Your task to perform on an android device: Open display settings Image 0: 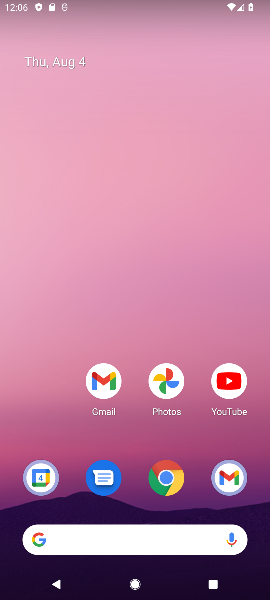
Step 0: type ""
Your task to perform on an android device: Open display settings Image 1: 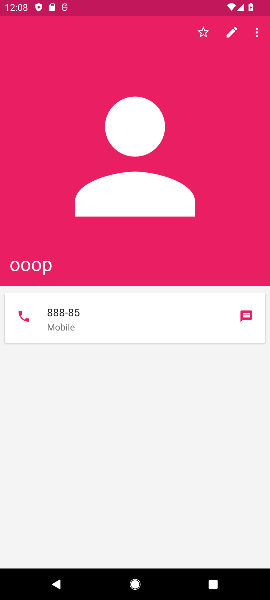
Step 1: press home button
Your task to perform on an android device: Open display settings Image 2: 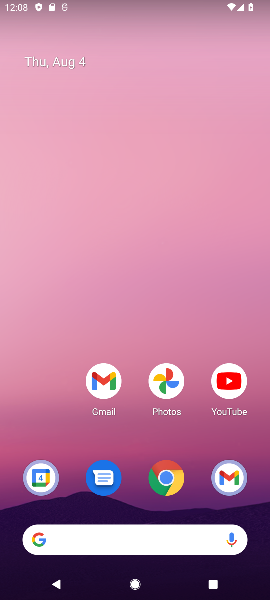
Step 2: drag from (143, 518) to (238, 59)
Your task to perform on an android device: Open display settings Image 3: 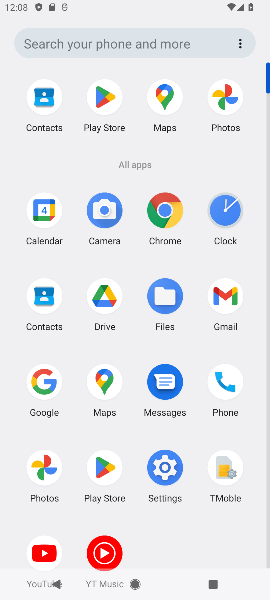
Step 3: click (154, 454)
Your task to perform on an android device: Open display settings Image 4: 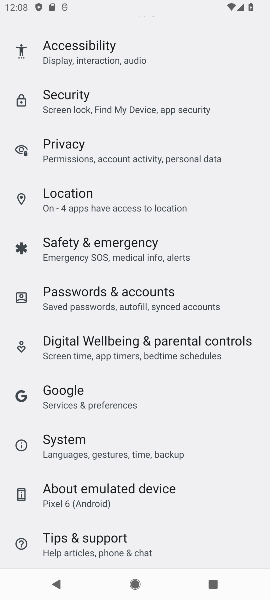
Step 4: drag from (100, 73) to (127, 462)
Your task to perform on an android device: Open display settings Image 5: 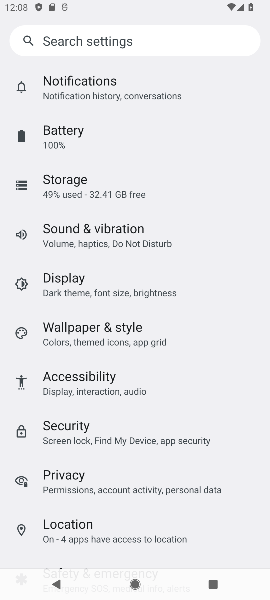
Step 5: drag from (118, 110) to (119, 356)
Your task to perform on an android device: Open display settings Image 6: 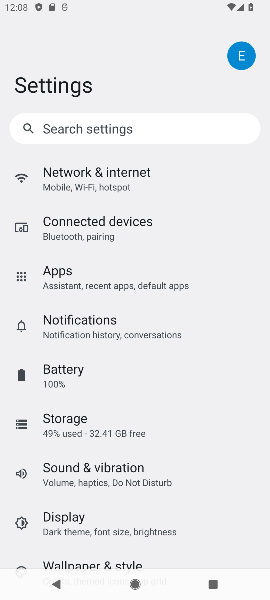
Step 6: click (67, 519)
Your task to perform on an android device: Open display settings Image 7: 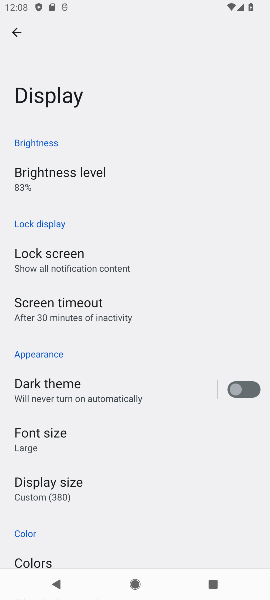
Step 7: task complete